Your task to perform on an android device: Set the phone to "Do not disturb". Image 0: 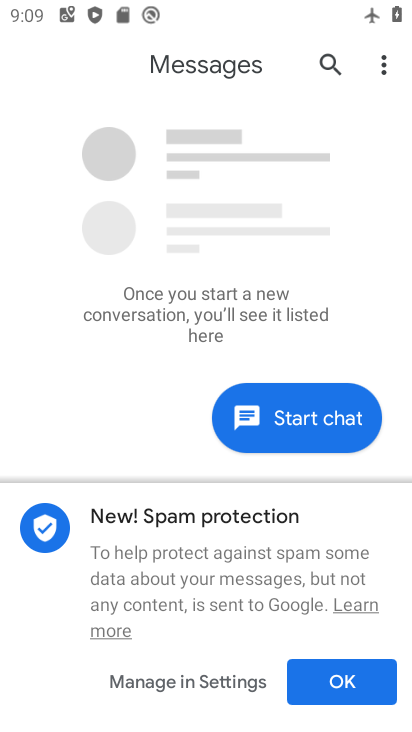
Step 0: press home button
Your task to perform on an android device: Set the phone to "Do not disturb". Image 1: 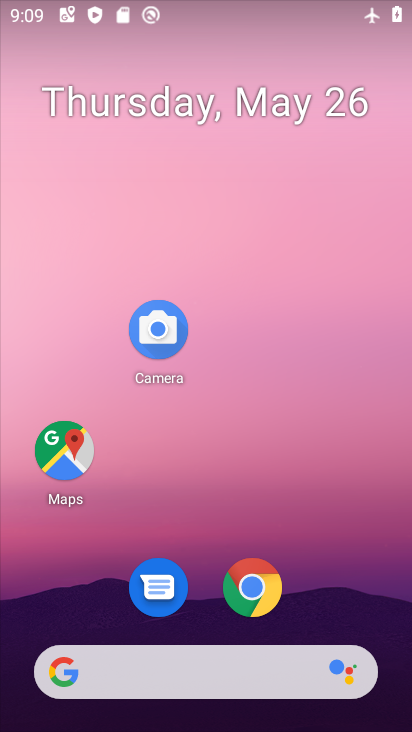
Step 1: drag from (200, 622) to (177, 238)
Your task to perform on an android device: Set the phone to "Do not disturb". Image 2: 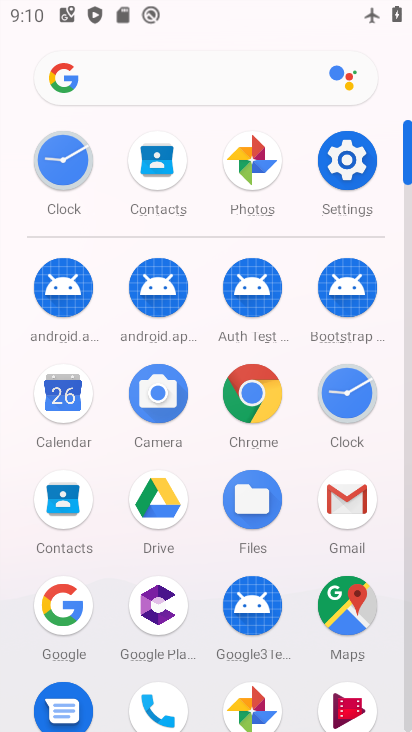
Step 2: click (355, 177)
Your task to perform on an android device: Set the phone to "Do not disturb". Image 3: 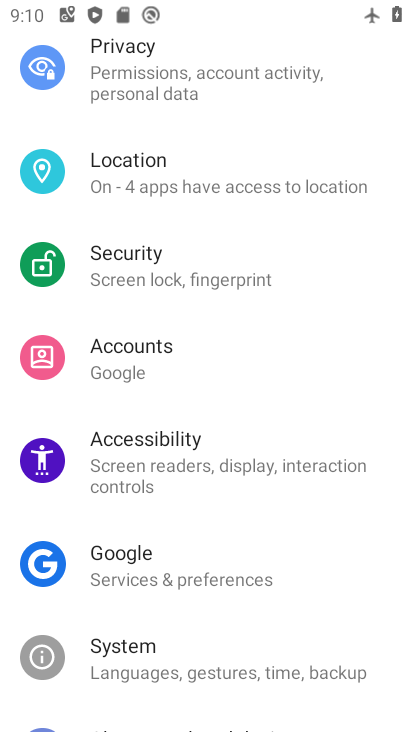
Step 3: drag from (195, 224) to (213, 456)
Your task to perform on an android device: Set the phone to "Do not disturb". Image 4: 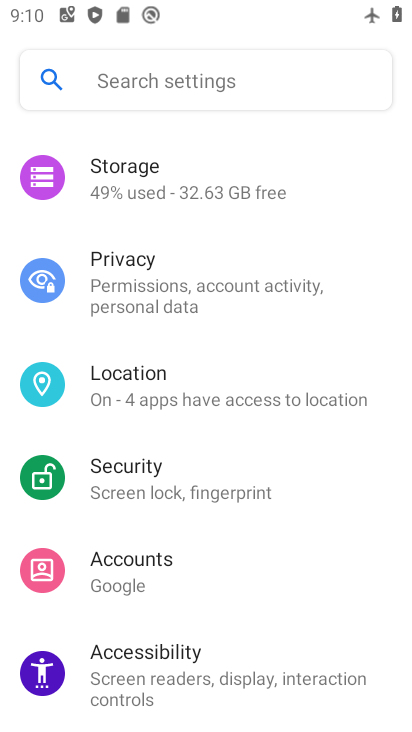
Step 4: drag from (189, 206) to (215, 425)
Your task to perform on an android device: Set the phone to "Do not disturb". Image 5: 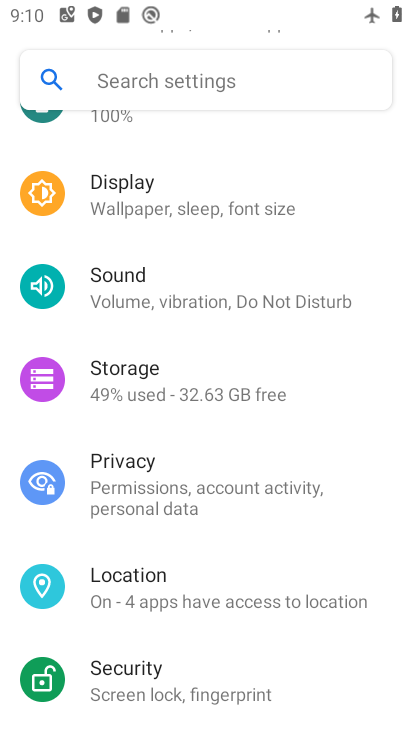
Step 5: click (188, 306)
Your task to perform on an android device: Set the phone to "Do not disturb". Image 6: 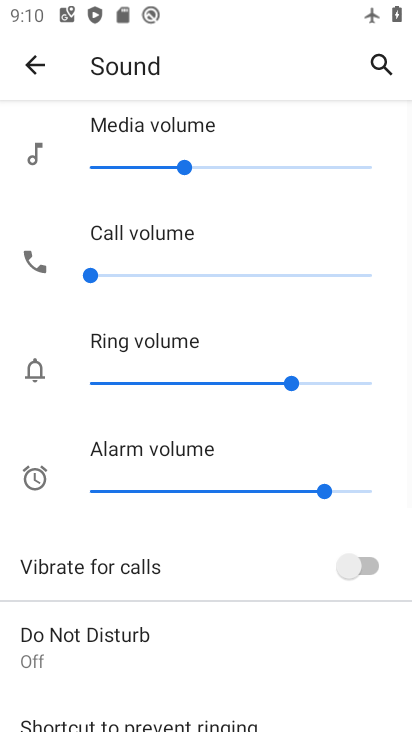
Step 6: drag from (194, 664) to (183, 404)
Your task to perform on an android device: Set the phone to "Do not disturb". Image 7: 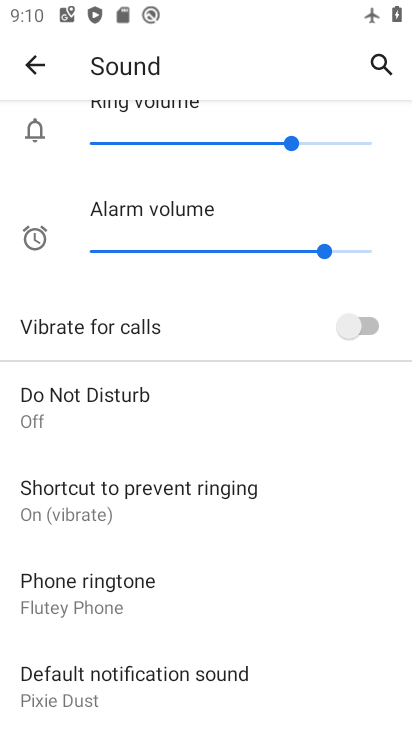
Step 7: click (166, 600)
Your task to perform on an android device: Set the phone to "Do not disturb". Image 8: 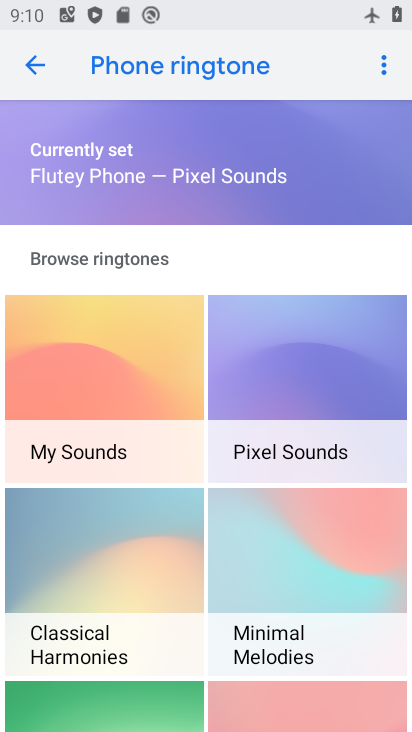
Step 8: click (28, 56)
Your task to perform on an android device: Set the phone to "Do not disturb". Image 9: 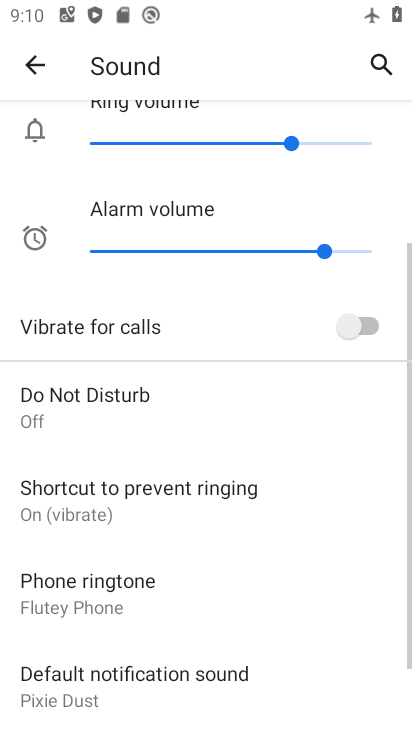
Step 9: click (110, 415)
Your task to perform on an android device: Set the phone to "Do not disturb". Image 10: 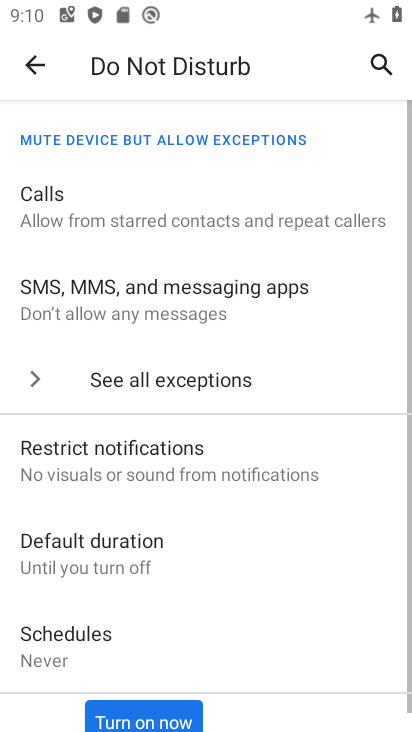
Step 10: drag from (216, 676) to (223, 403)
Your task to perform on an android device: Set the phone to "Do not disturb". Image 11: 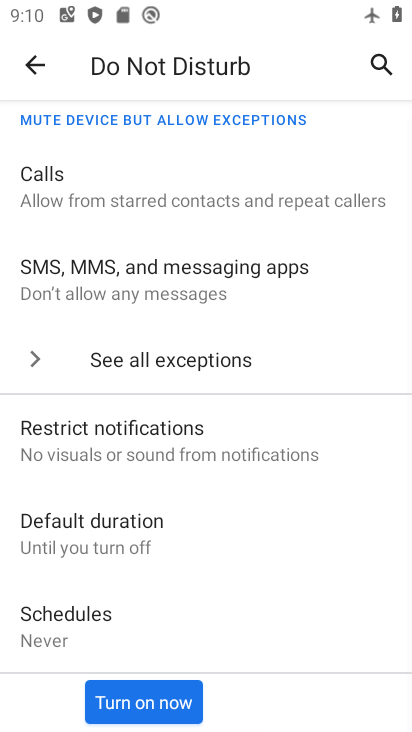
Step 11: click (169, 710)
Your task to perform on an android device: Set the phone to "Do not disturb". Image 12: 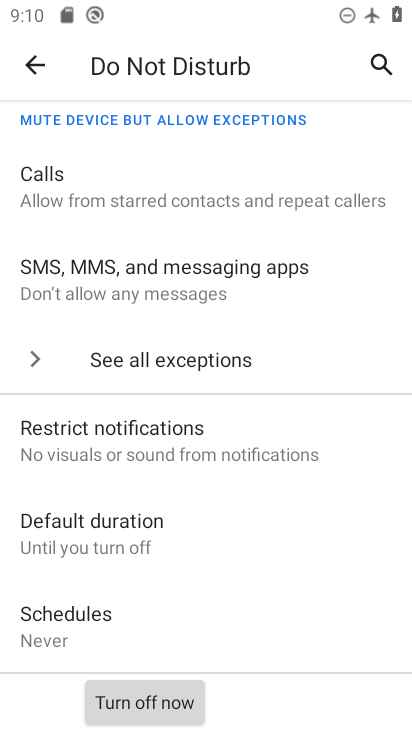
Step 12: task complete